Your task to perform on an android device: What's on the menu at Papa John's? Image 0: 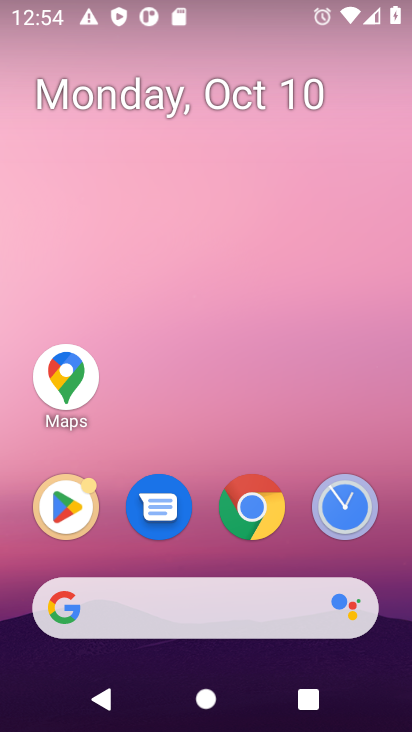
Step 0: click (249, 614)
Your task to perform on an android device: What's on the menu at Papa John's? Image 1: 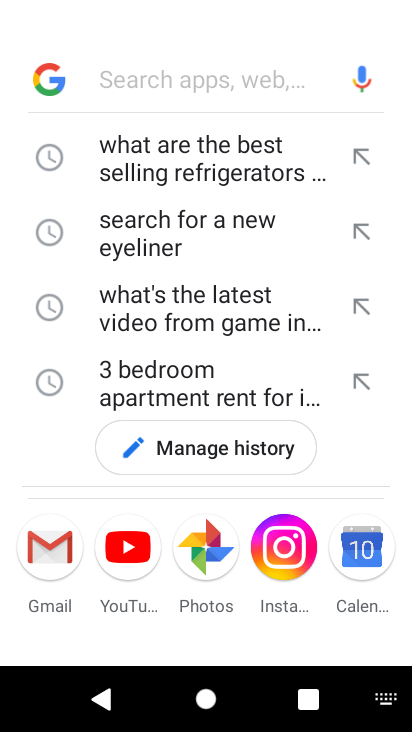
Step 1: type "What's on the menu at Papa John's"
Your task to perform on an android device: What's on the menu at Papa John's? Image 2: 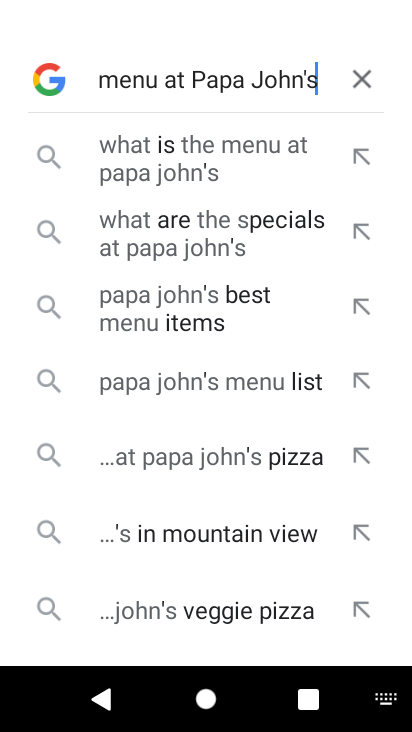
Step 2: press enter
Your task to perform on an android device: What's on the menu at Papa John's? Image 3: 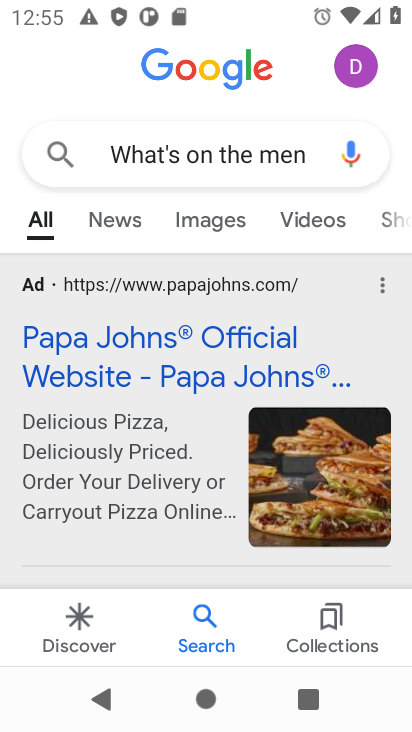
Step 3: click (168, 362)
Your task to perform on an android device: What's on the menu at Papa John's? Image 4: 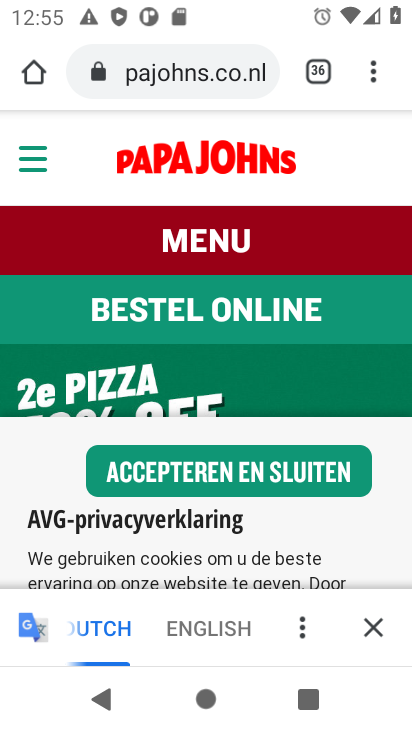
Step 4: task complete